Your task to perform on an android device: Go to Maps Image 0: 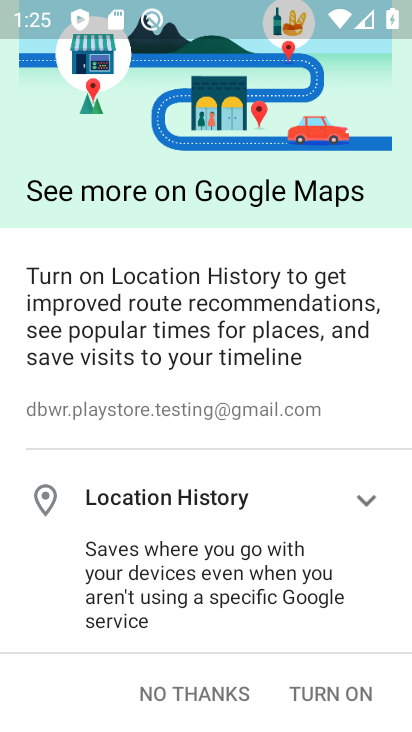
Step 0: press back button
Your task to perform on an android device: Go to Maps Image 1: 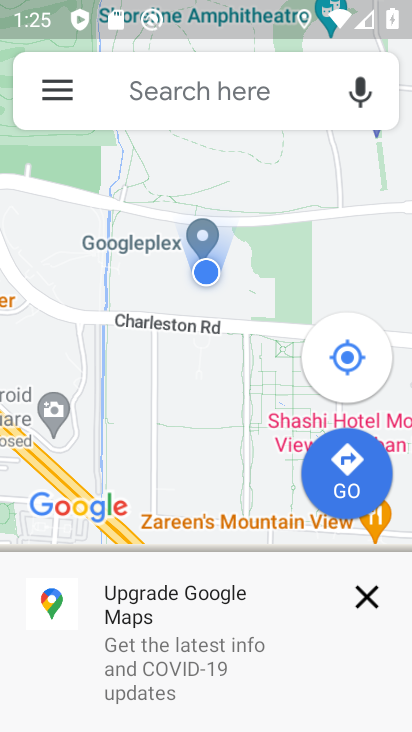
Step 1: task complete